Your task to perform on an android device: Open Android settings Image 0: 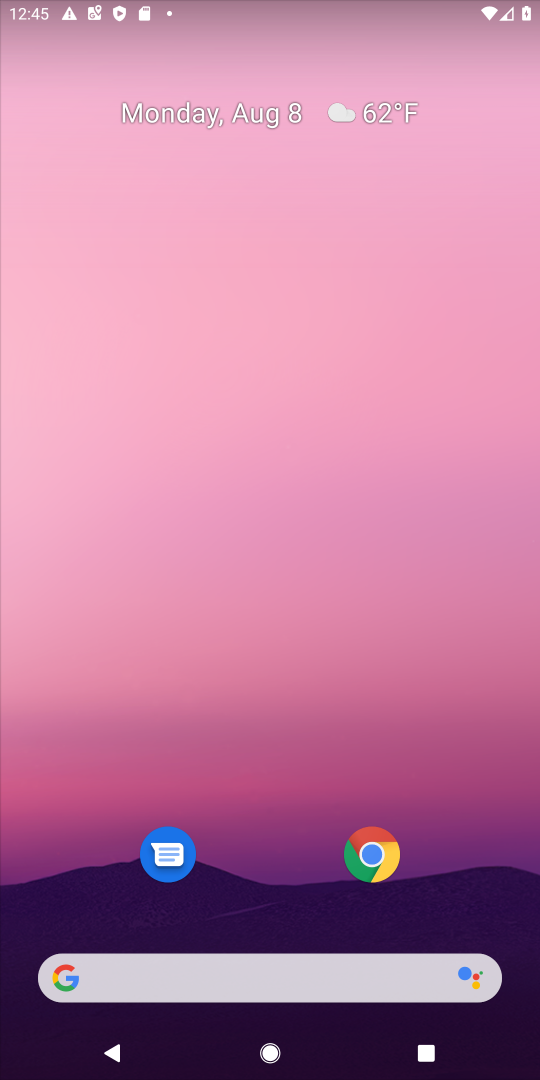
Step 0: press home button
Your task to perform on an android device: Open Android settings Image 1: 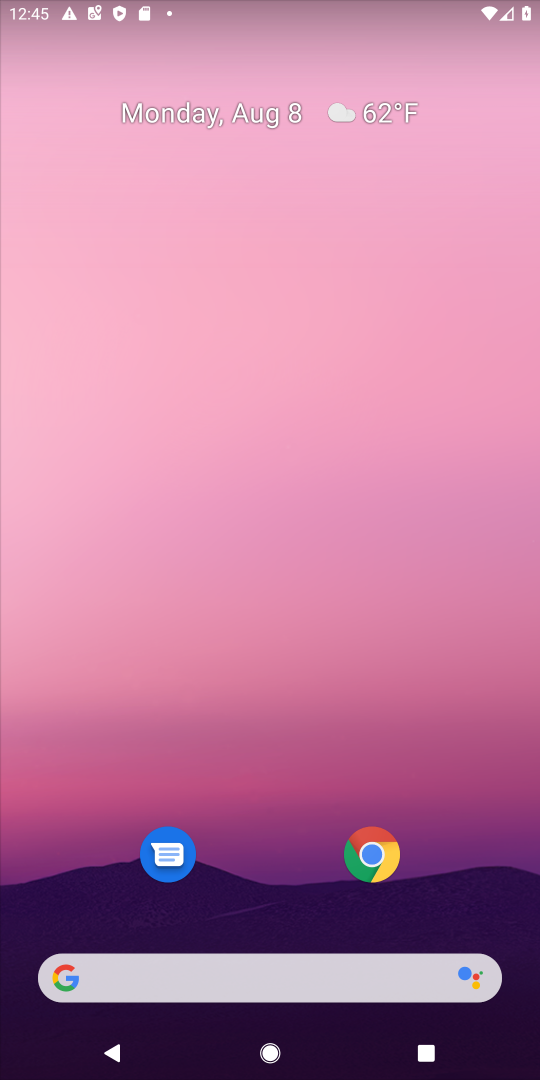
Step 1: drag from (291, 528) to (349, 183)
Your task to perform on an android device: Open Android settings Image 2: 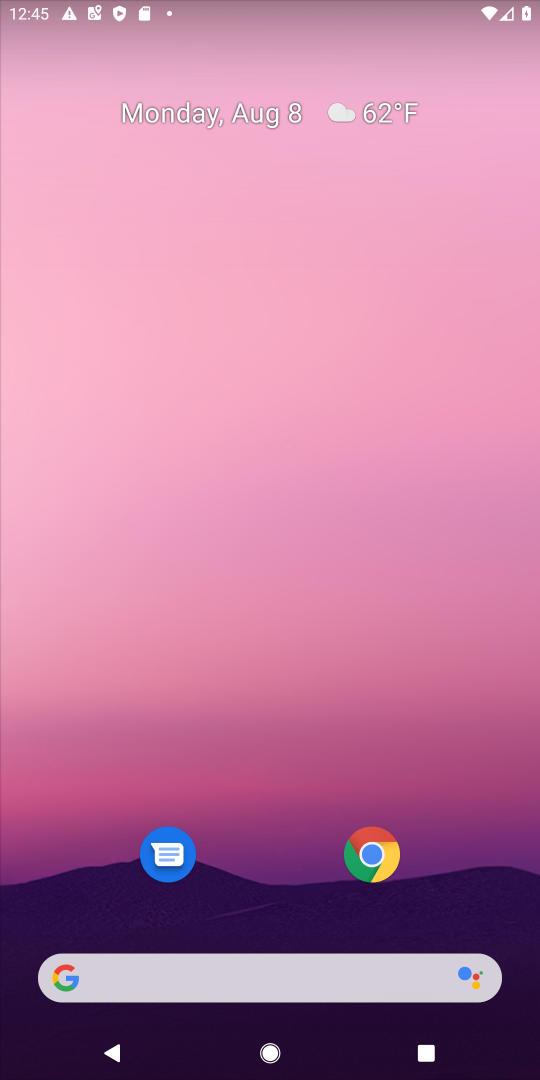
Step 2: drag from (300, 278) to (380, 0)
Your task to perform on an android device: Open Android settings Image 3: 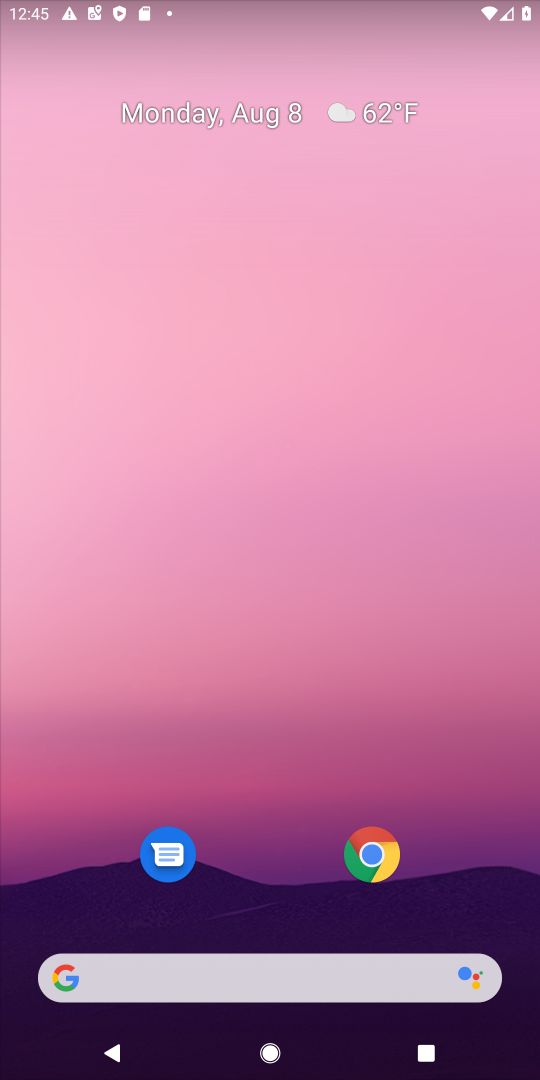
Step 3: drag from (292, 909) to (441, 14)
Your task to perform on an android device: Open Android settings Image 4: 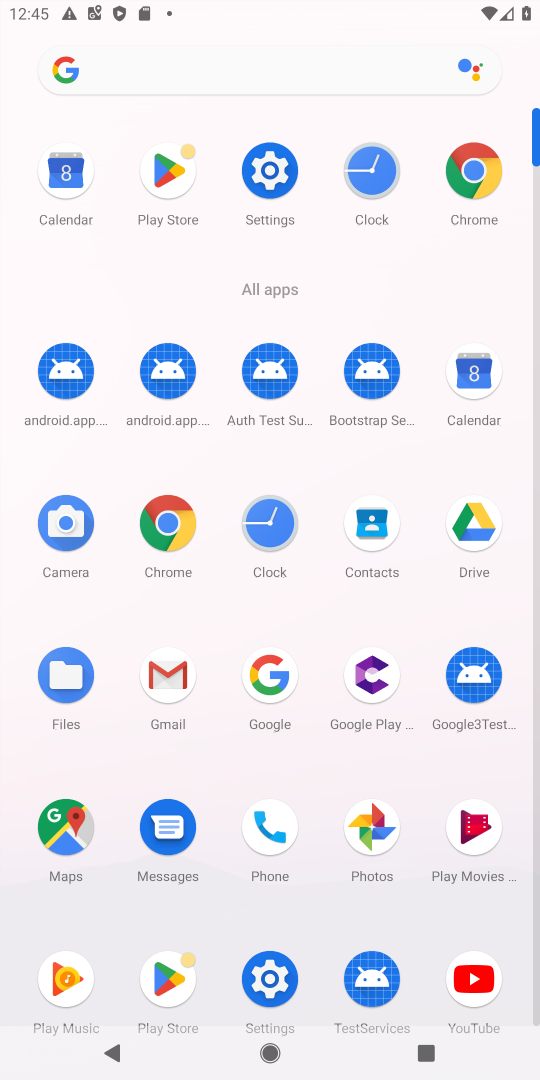
Step 4: click (273, 199)
Your task to perform on an android device: Open Android settings Image 5: 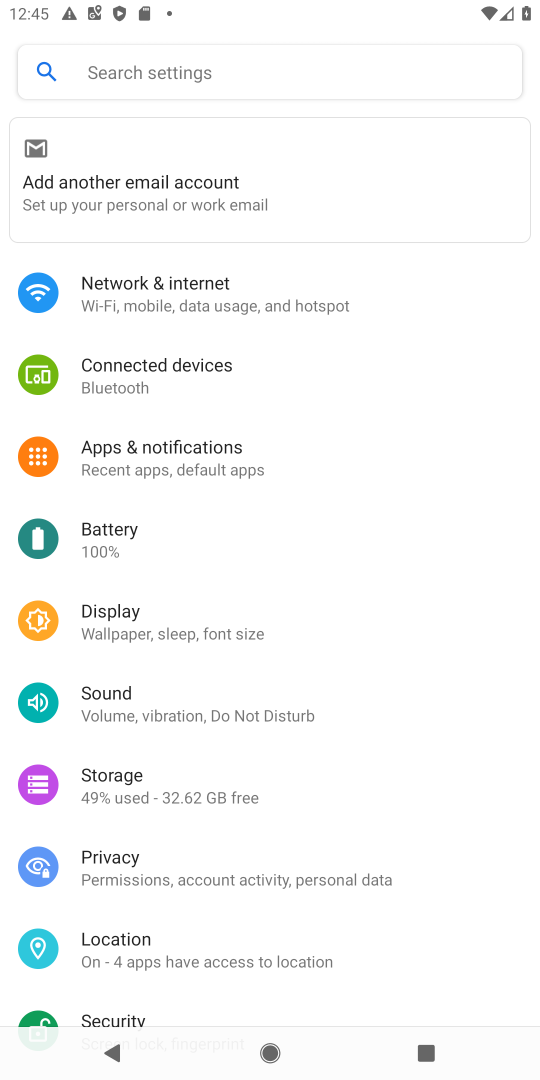
Step 5: task complete